Your task to perform on an android device: open app "Google News" (install if not already installed) Image 0: 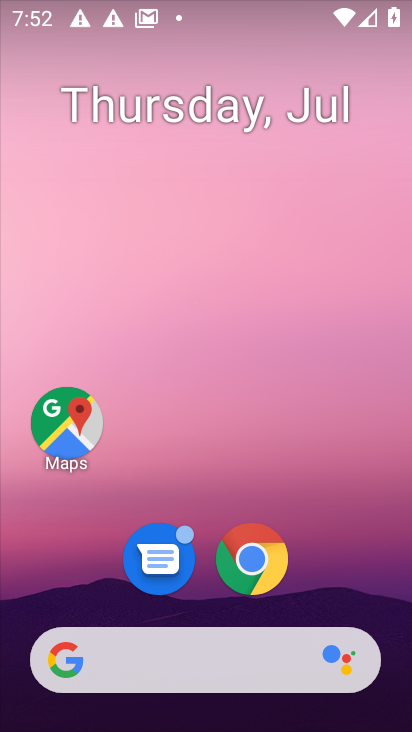
Step 0: drag from (209, 475) to (253, 132)
Your task to perform on an android device: open app "Google News" (install if not already installed) Image 1: 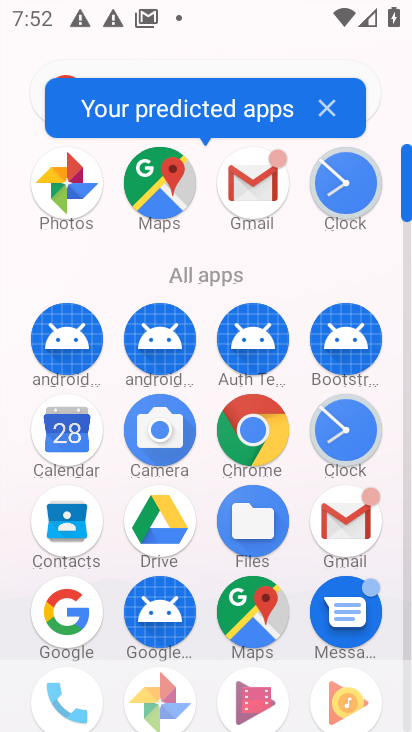
Step 1: drag from (197, 613) to (191, 238)
Your task to perform on an android device: open app "Google News" (install if not already installed) Image 2: 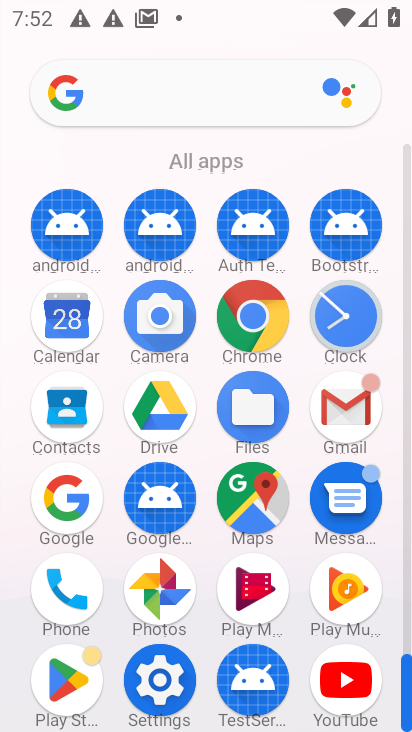
Step 2: click (78, 677)
Your task to perform on an android device: open app "Google News" (install if not already installed) Image 3: 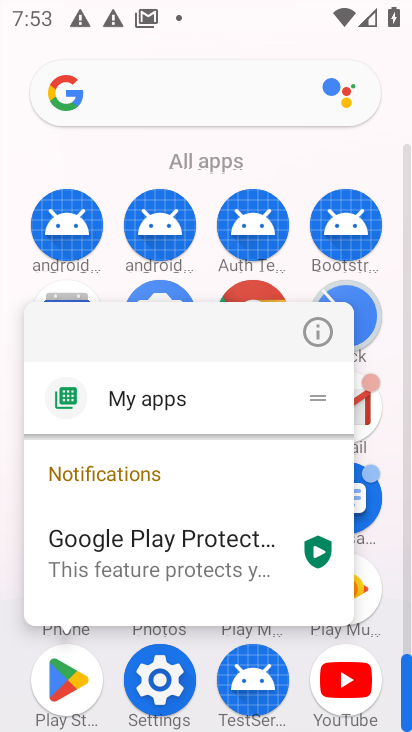
Step 3: click (317, 335)
Your task to perform on an android device: open app "Google News" (install if not already installed) Image 4: 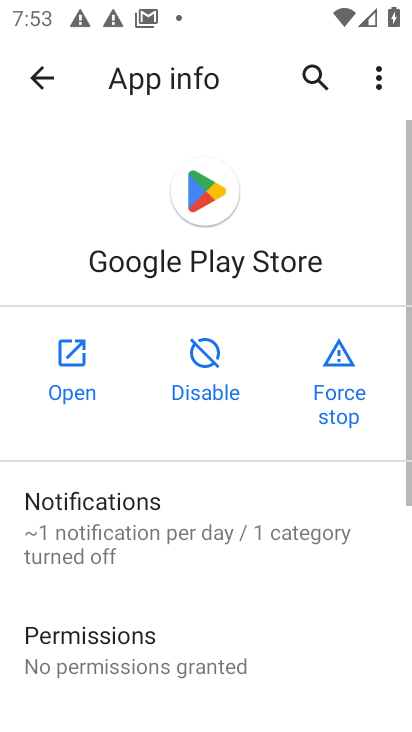
Step 4: click (58, 384)
Your task to perform on an android device: open app "Google News" (install if not already installed) Image 5: 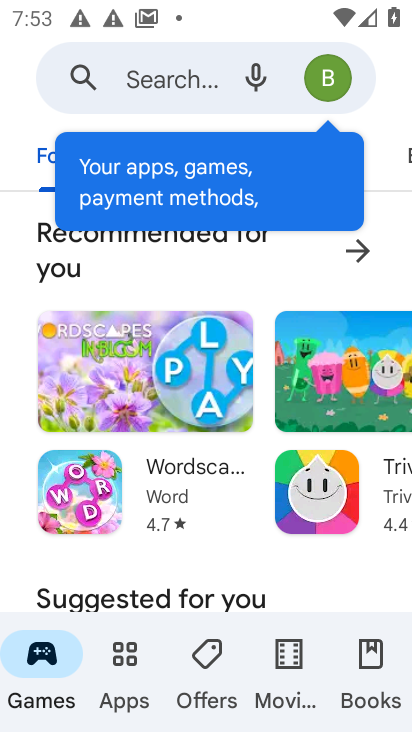
Step 5: click (148, 81)
Your task to perform on an android device: open app "Google News" (install if not already installed) Image 6: 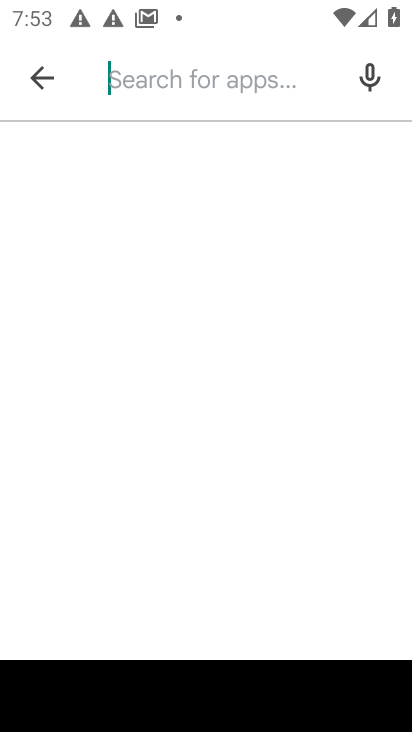
Step 6: type "Google News"
Your task to perform on an android device: open app "Google News" (install if not already installed) Image 7: 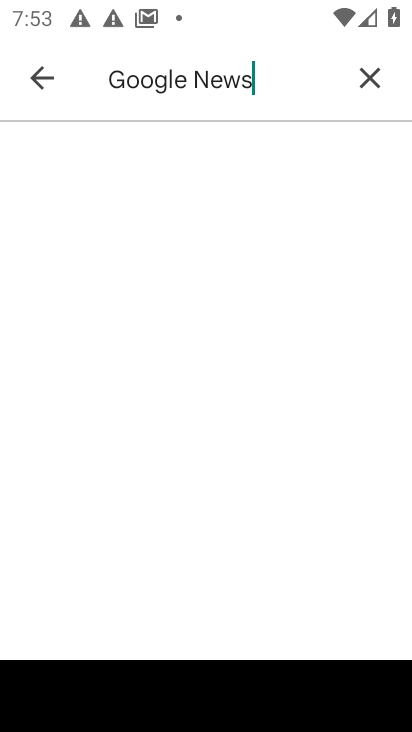
Step 7: type ""
Your task to perform on an android device: open app "Google News" (install if not already installed) Image 8: 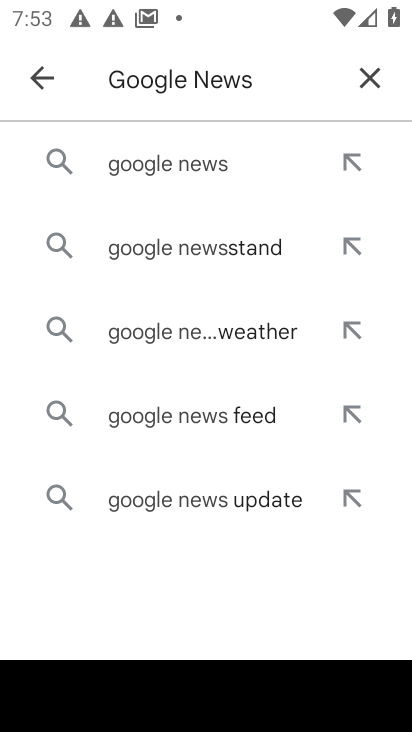
Step 8: click (134, 162)
Your task to perform on an android device: open app "Google News" (install if not already installed) Image 9: 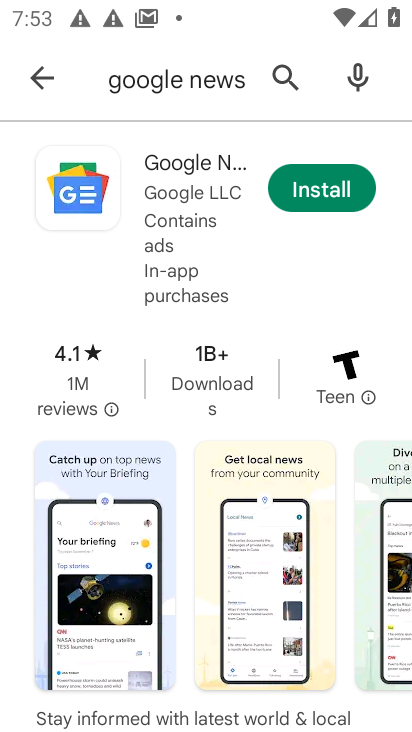
Step 9: click (345, 189)
Your task to perform on an android device: open app "Google News" (install if not already installed) Image 10: 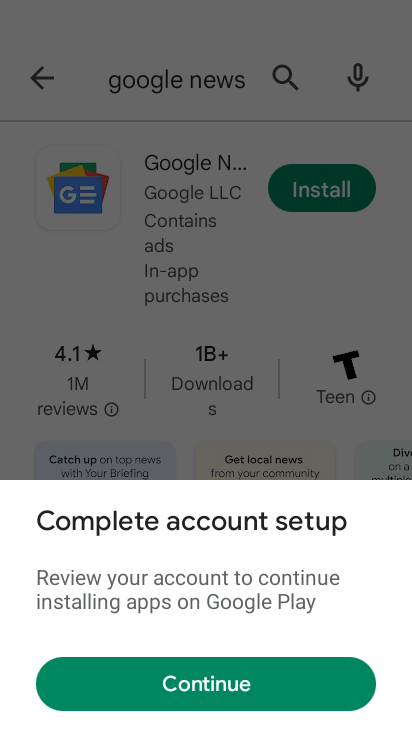
Step 10: click (183, 701)
Your task to perform on an android device: open app "Google News" (install if not already installed) Image 11: 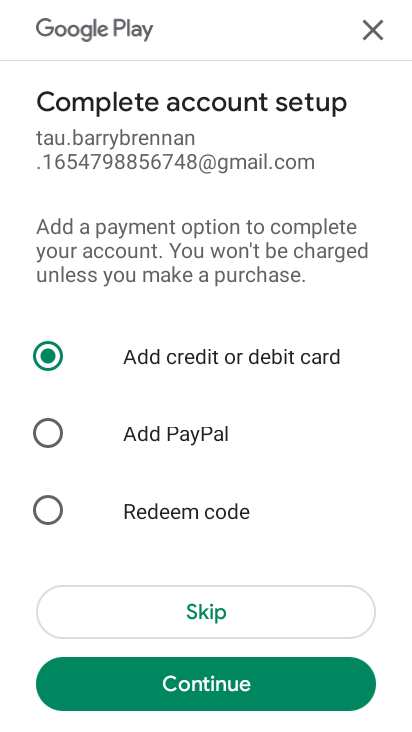
Step 11: click (126, 608)
Your task to perform on an android device: open app "Google News" (install if not already installed) Image 12: 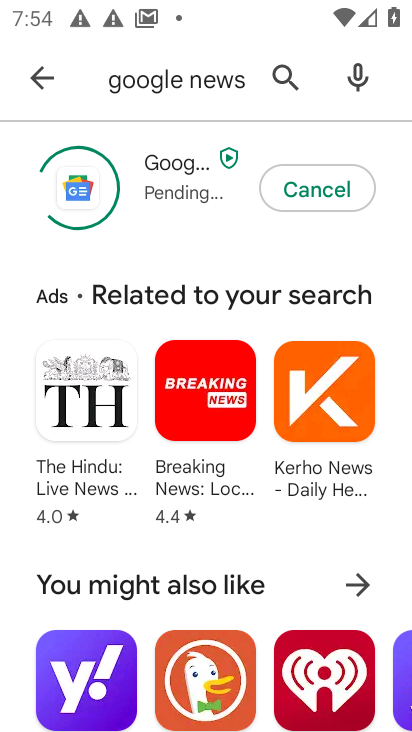
Step 12: click (170, 155)
Your task to perform on an android device: open app "Google News" (install if not already installed) Image 13: 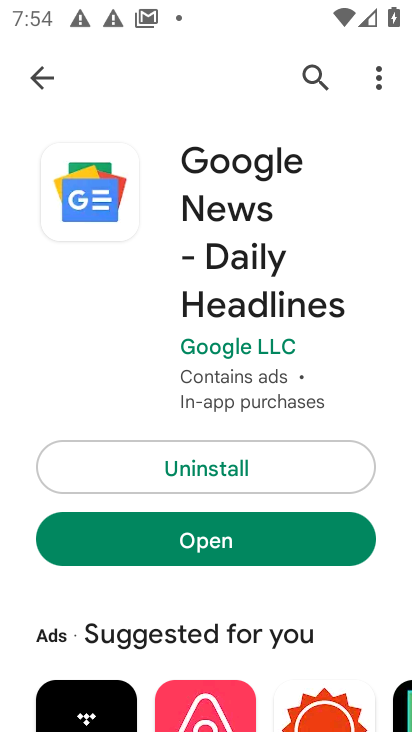
Step 13: click (166, 539)
Your task to perform on an android device: open app "Google News" (install if not already installed) Image 14: 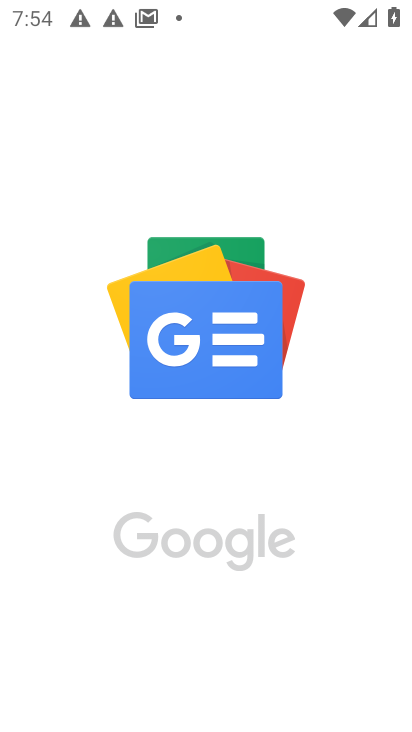
Step 14: task complete